Your task to perform on an android device: turn pop-ups off in chrome Image 0: 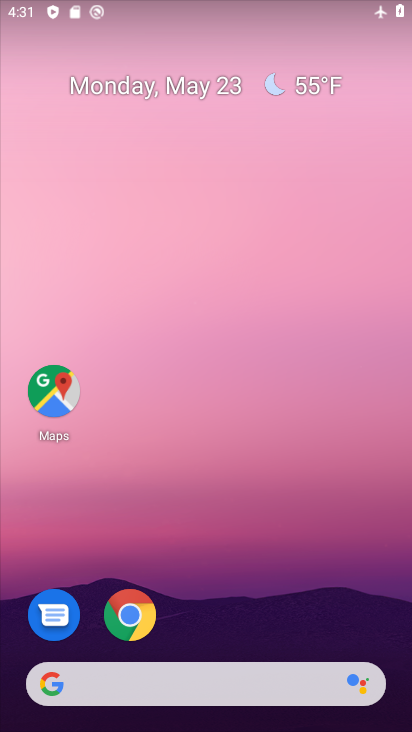
Step 0: drag from (385, 646) to (377, 230)
Your task to perform on an android device: turn pop-ups off in chrome Image 1: 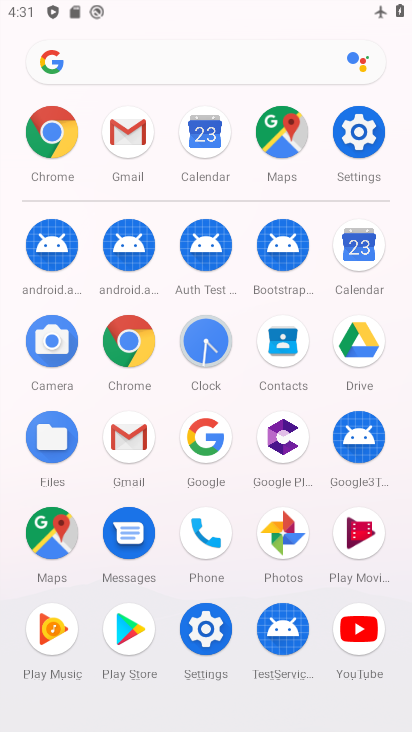
Step 1: click (136, 349)
Your task to perform on an android device: turn pop-ups off in chrome Image 2: 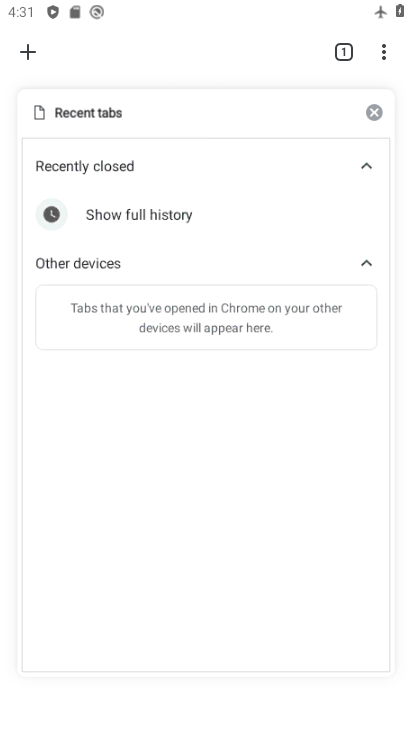
Step 2: press back button
Your task to perform on an android device: turn pop-ups off in chrome Image 3: 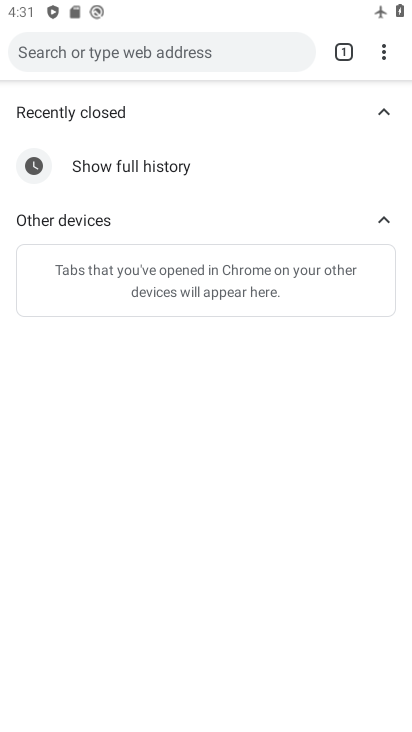
Step 3: click (385, 60)
Your task to perform on an android device: turn pop-ups off in chrome Image 4: 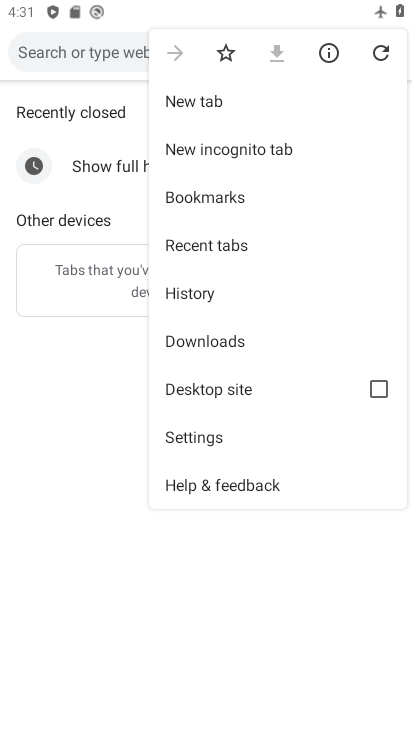
Step 4: click (235, 445)
Your task to perform on an android device: turn pop-ups off in chrome Image 5: 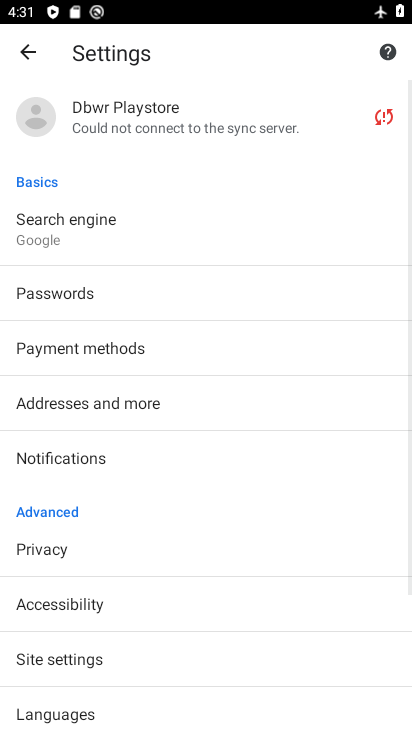
Step 5: drag from (276, 526) to (286, 472)
Your task to perform on an android device: turn pop-ups off in chrome Image 6: 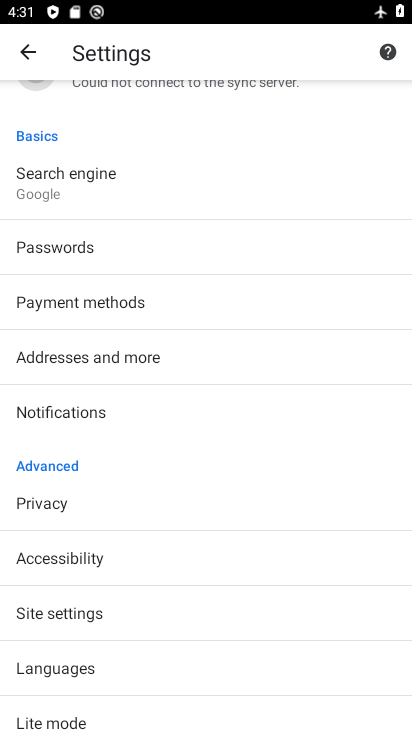
Step 6: drag from (346, 646) to (365, 525)
Your task to perform on an android device: turn pop-ups off in chrome Image 7: 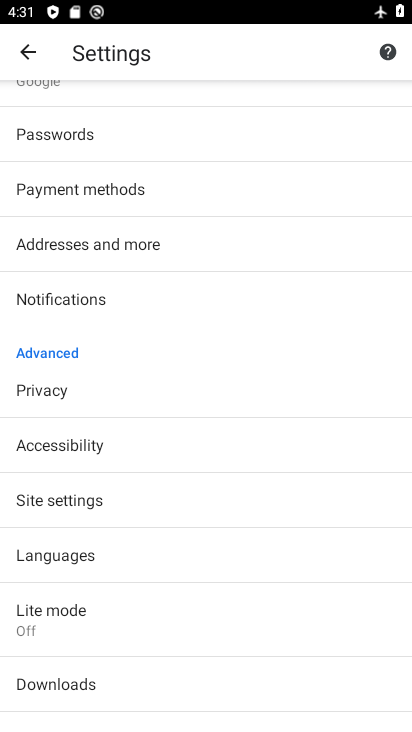
Step 7: drag from (356, 663) to (367, 559)
Your task to perform on an android device: turn pop-ups off in chrome Image 8: 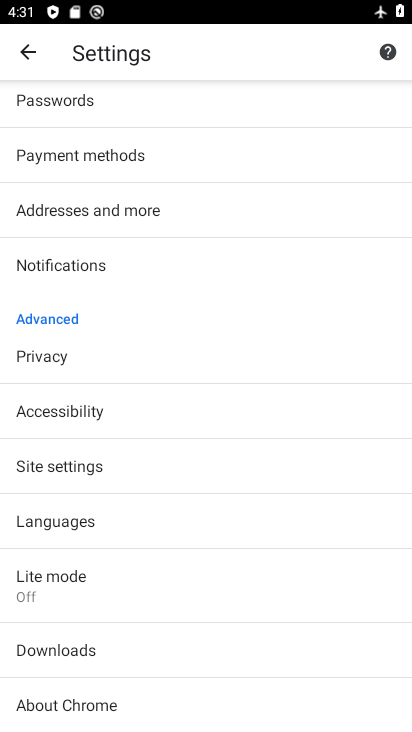
Step 8: click (194, 466)
Your task to perform on an android device: turn pop-ups off in chrome Image 9: 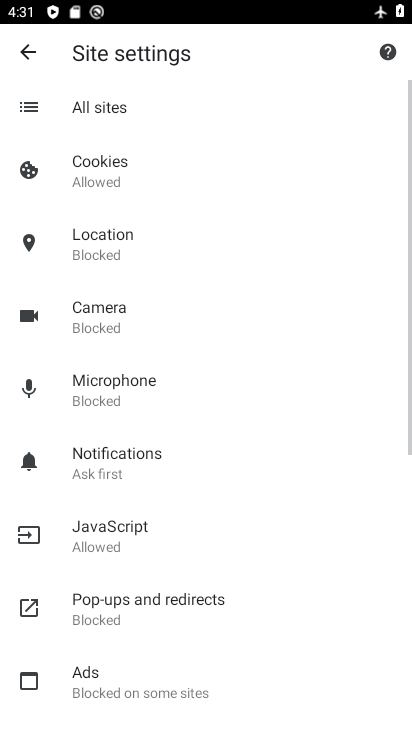
Step 9: drag from (326, 606) to (335, 528)
Your task to perform on an android device: turn pop-ups off in chrome Image 10: 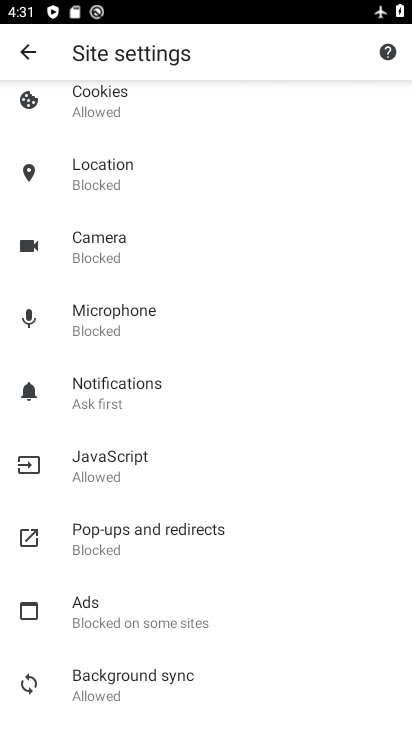
Step 10: drag from (359, 653) to (368, 542)
Your task to perform on an android device: turn pop-ups off in chrome Image 11: 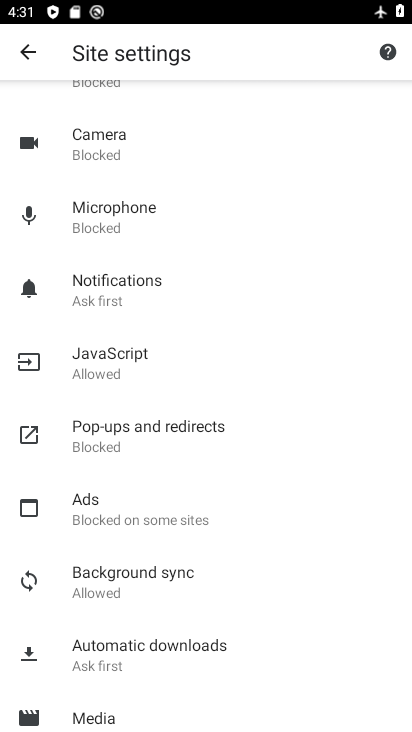
Step 11: drag from (340, 657) to (349, 568)
Your task to perform on an android device: turn pop-ups off in chrome Image 12: 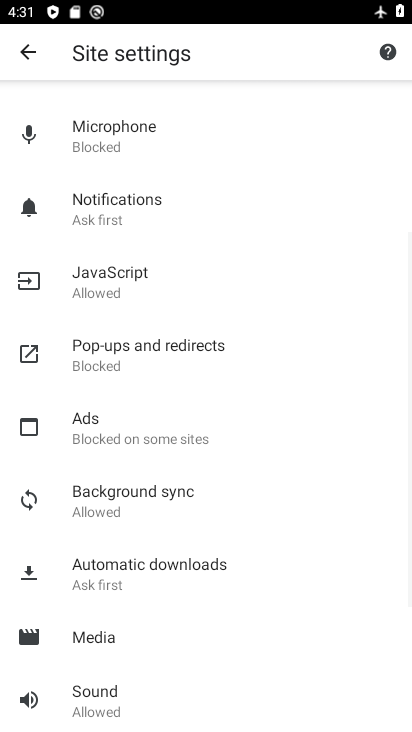
Step 12: drag from (344, 648) to (349, 567)
Your task to perform on an android device: turn pop-ups off in chrome Image 13: 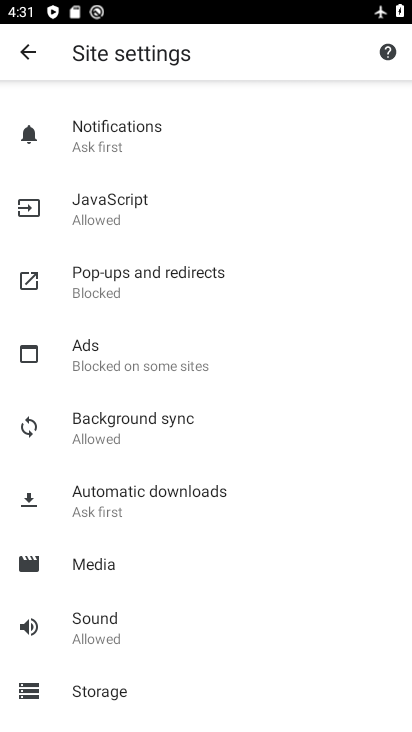
Step 13: drag from (339, 659) to (359, 551)
Your task to perform on an android device: turn pop-ups off in chrome Image 14: 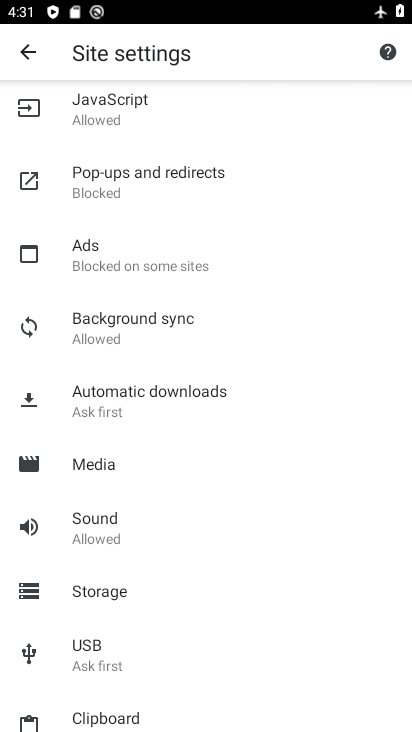
Step 14: drag from (350, 681) to (354, 579)
Your task to perform on an android device: turn pop-ups off in chrome Image 15: 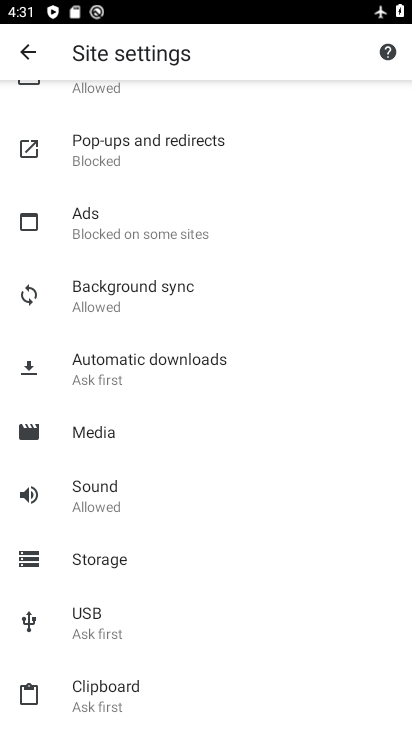
Step 15: drag from (356, 515) to (355, 584)
Your task to perform on an android device: turn pop-ups off in chrome Image 16: 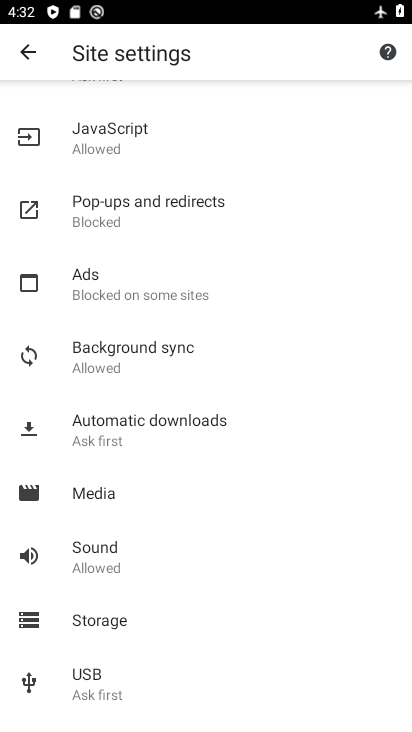
Step 16: drag from (355, 511) to (357, 575)
Your task to perform on an android device: turn pop-ups off in chrome Image 17: 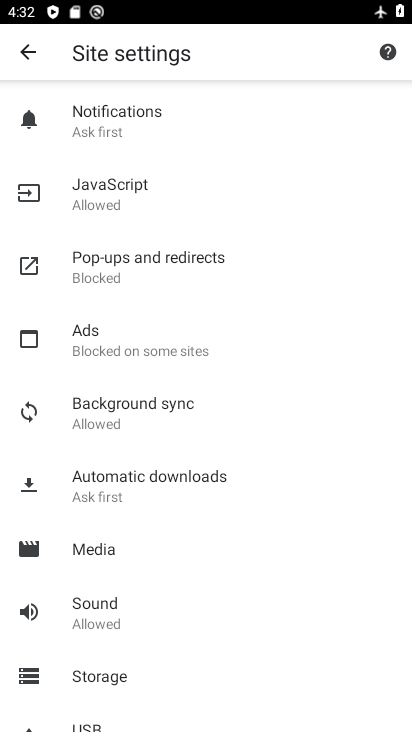
Step 17: drag from (358, 484) to (355, 557)
Your task to perform on an android device: turn pop-ups off in chrome Image 18: 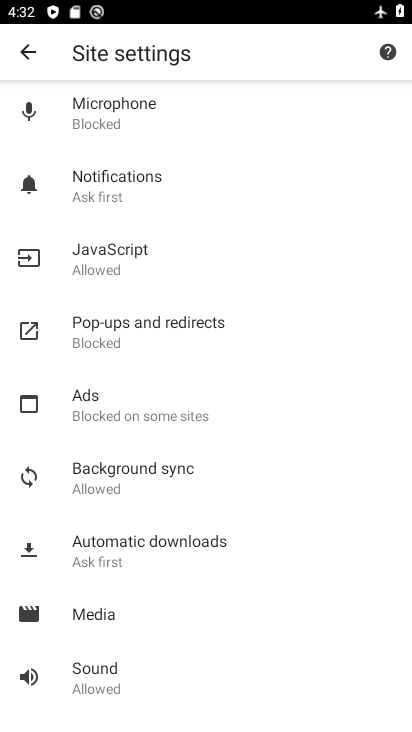
Step 18: drag from (341, 454) to (325, 565)
Your task to perform on an android device: turn pop-ups off in chrome Image 19: 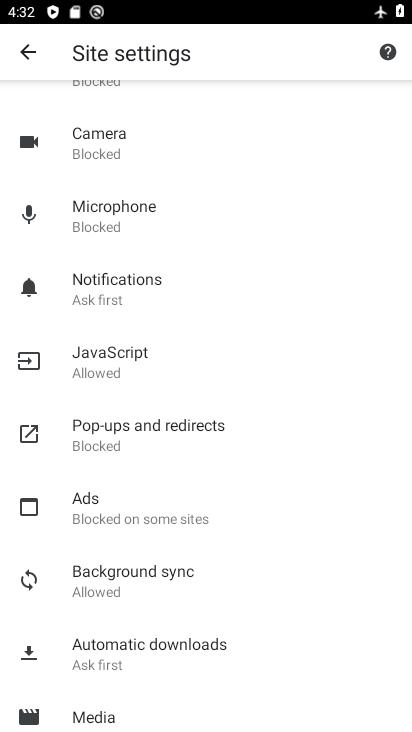
Step 19: drag from (329, 433) to (320, 543)
Your task to perform on an android device: turn pop-ups off in chrome Image 20: 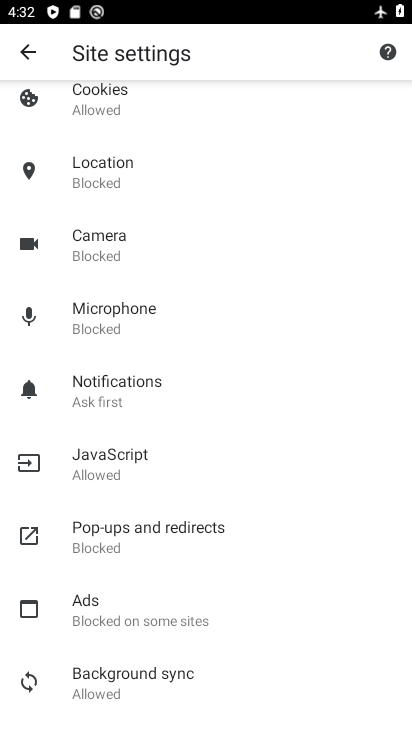
Step 20: click (193, 538)
Your task to perform on an android device: turn pop-ups off in chrome Image 21: 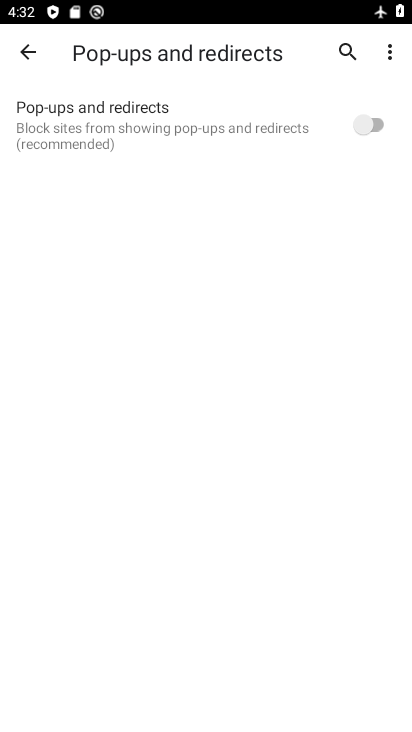
Step 21: task complete